Your task to perform on an android device: turn off javascript in the chrome app Image 0: 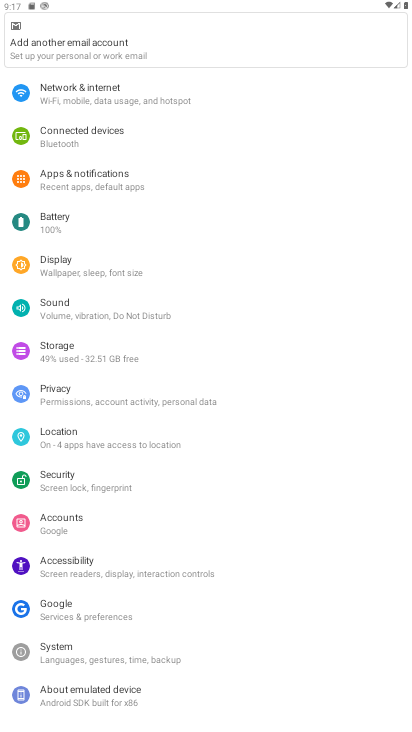
Step 0: press home button
Your task to perform on an android device: turn off javascript in the chrome app Image 1: 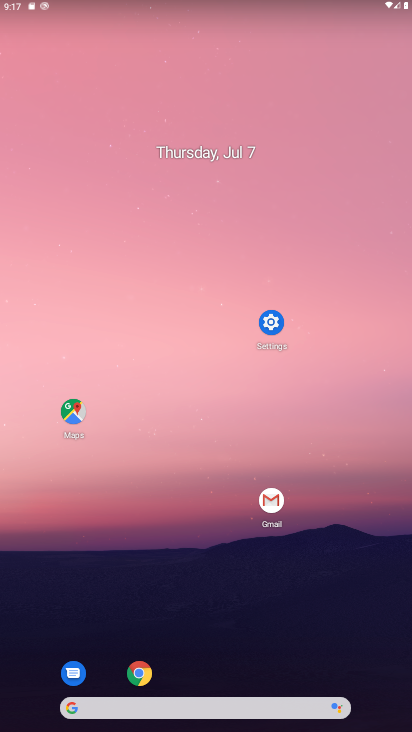
Step 1: click (139, 673)
Your task to perform on an android device: turn off javascript in the chrome app Image 2: 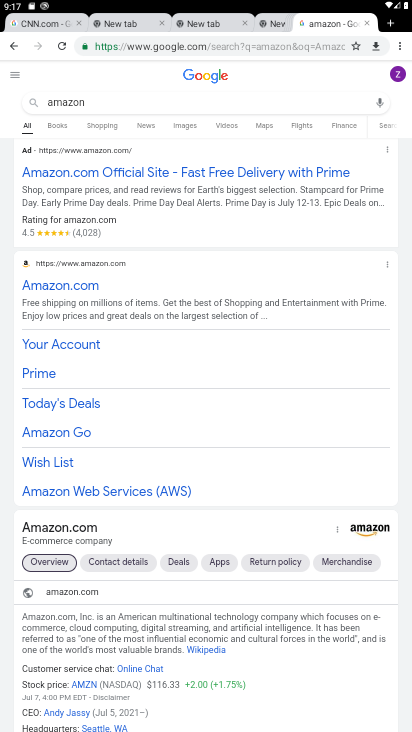
Step 2: click (398, 47)
Your task to perform on an android device: turn off javascript in the chrome app Image 3: 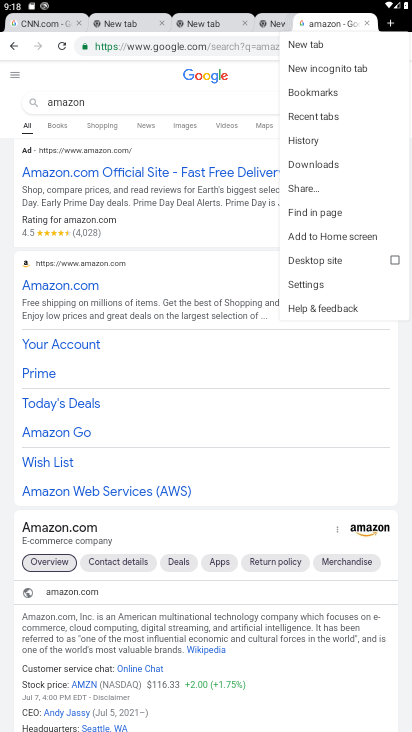
Step 3: click (313, 280)
Your task to perform on an android device: turn off javascript in the chrome app Image 4: 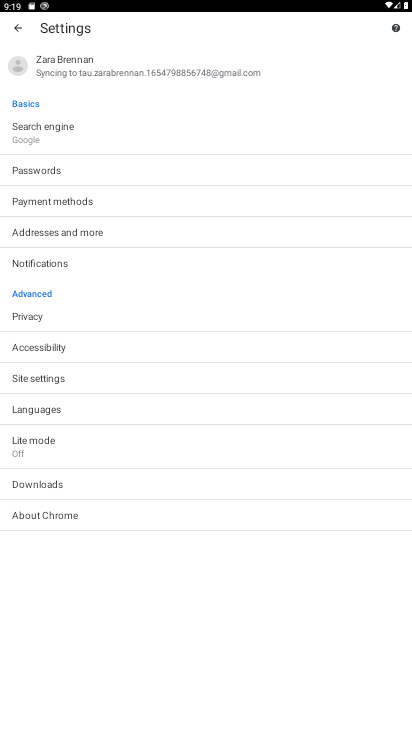
Step 4: click (46, 371)
Your task to perform on an android device: turn off javascript in the chrome app Image 5: 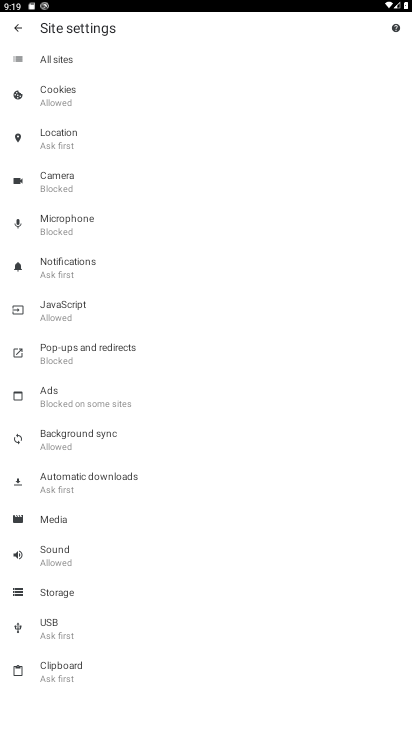
Step 5: click (72, 303)
Your task to perform on an android device: turn off javascript in the chrome app Image 6: 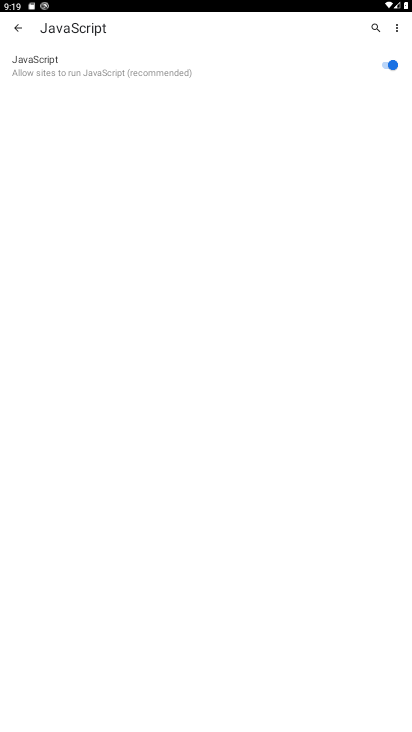
Step 6: click (387, 62)
Your task to perform on an android device: turn off javascript in the chrome app Image 7: 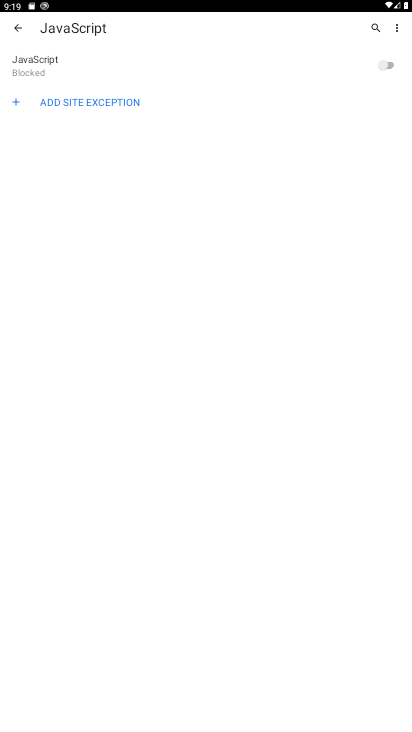
Step 7: task complete